Your task to perform on an android device: make emails show in primary in the gmail app Image 0: 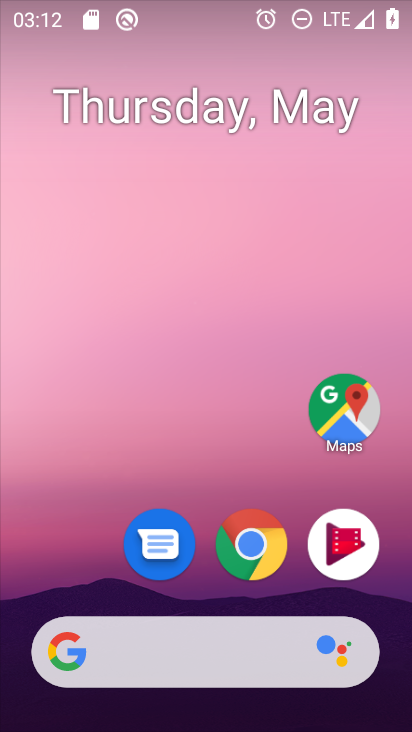
Step 0: drag from (80, 577) to (81, 182)
Your task to perform on an android device: make emails show in primary in the gmail app Image 1: 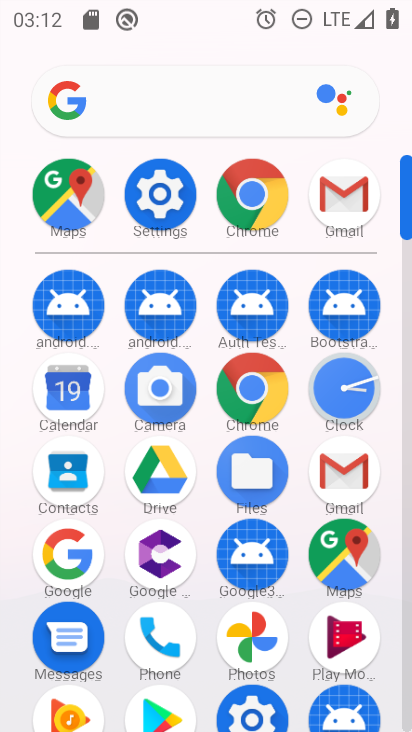
Step 1: click (369, 476)
Your task to perform on an android device: make emails show in primary in the gmail app Image 2: 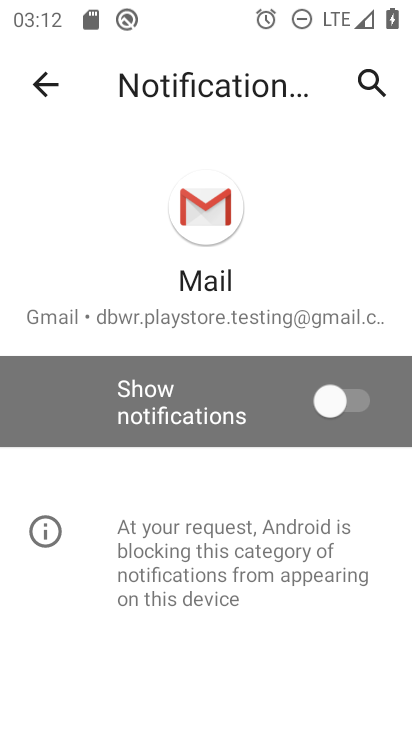
Step 2: click (48, 88)
Your task to perform on an android device: make emails show in primary in the gmail app Image 3: 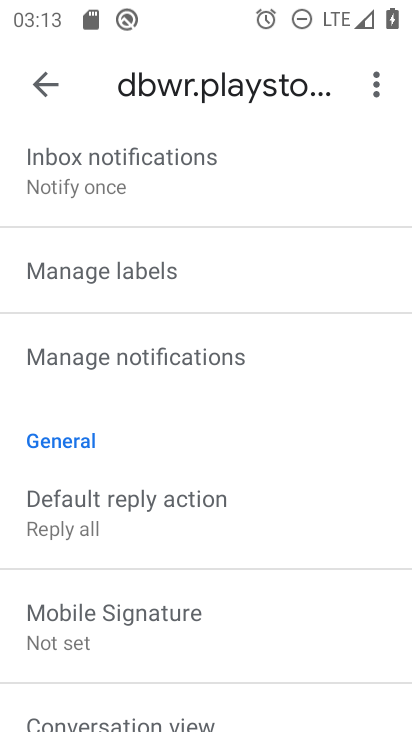
Step 3: drag from (271, 600) to (285, 492)
Your task to perform on an android device: make emails show in primary in the gmail app Image 4: 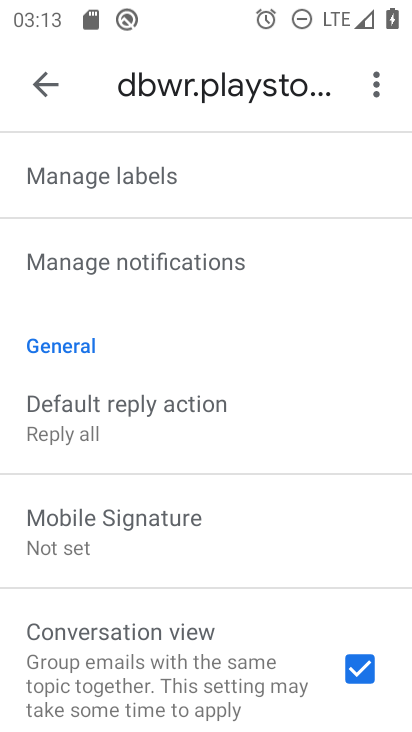
Step 4: drag from (282, 631) to (291, 469)
Your task to perform on an android device: make emails show in primary in the gmail app Image 5: 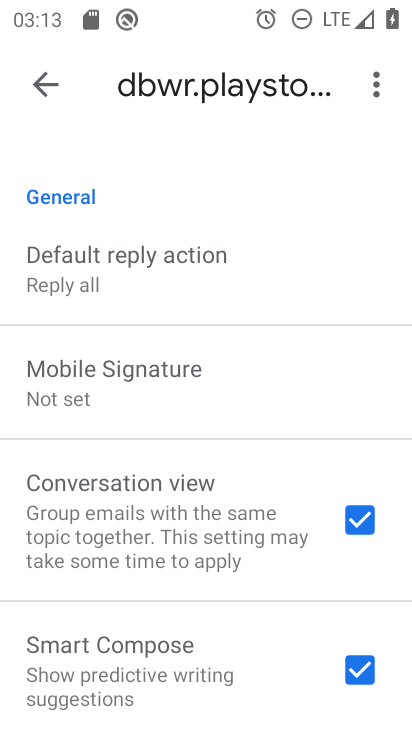
Step 5: drag from (286, 670) to (297, 535)
Your task to perform on an android device: make emails show in primary in the gmail app Image 6: 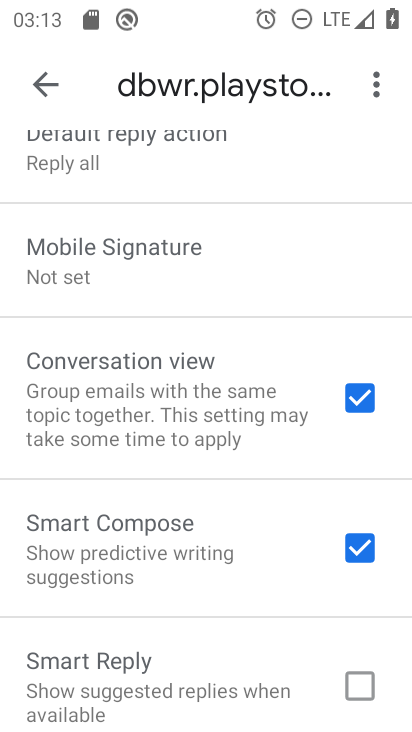
Step 6: drag from (271, 676) to (283, 532)
Your task to perform on an android device: make emails show in primary in the gmail app Image 7: 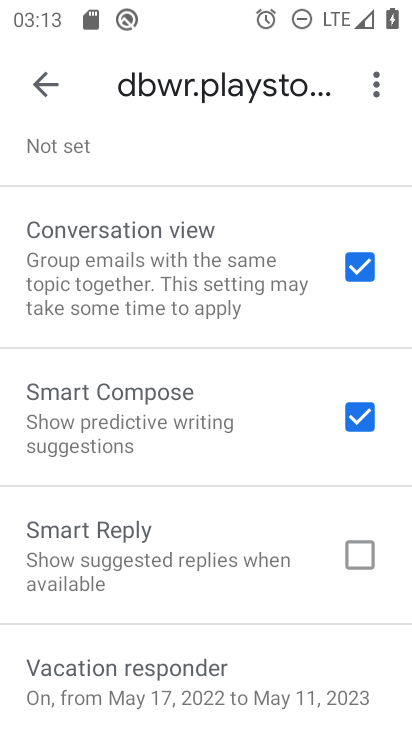
Step 7: drag from (280, 672) to (291, 545)
Your task to perform on an android device: make emails show in primary in the gmail app Image 8: 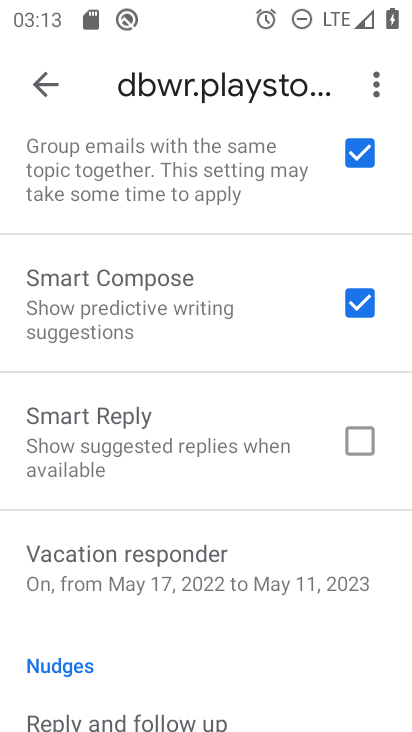
Step 8: drag from (284, 686) to (298, 562)
Your task to perform on an android device: make emails show in primary in the gmail app Image 9: 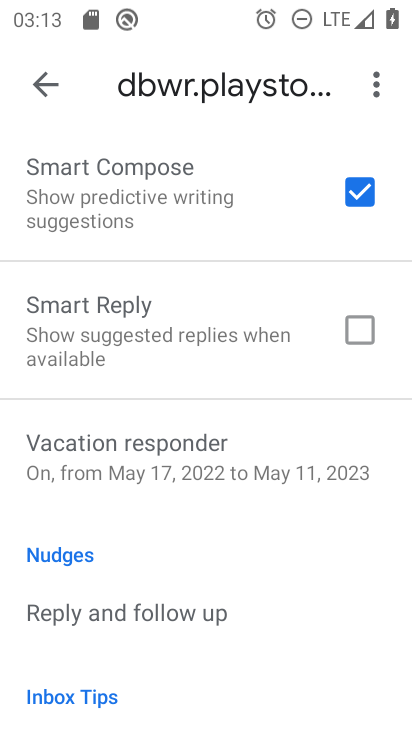
Step 9: drag from (295, 687) to (305, 543)
Your task to perform on an android device: make emails show in primary in the gmail app Image 10: 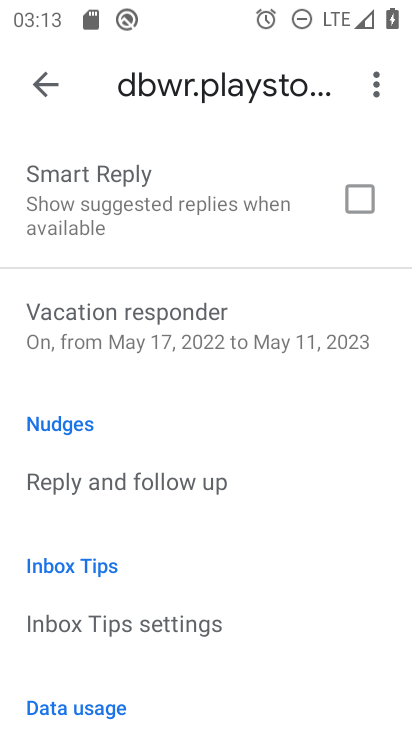
Step 10: drag from (283, 705) to (318, 362)
Your task to perform on an android device: make emails show in primary in the gmail app Image 11: 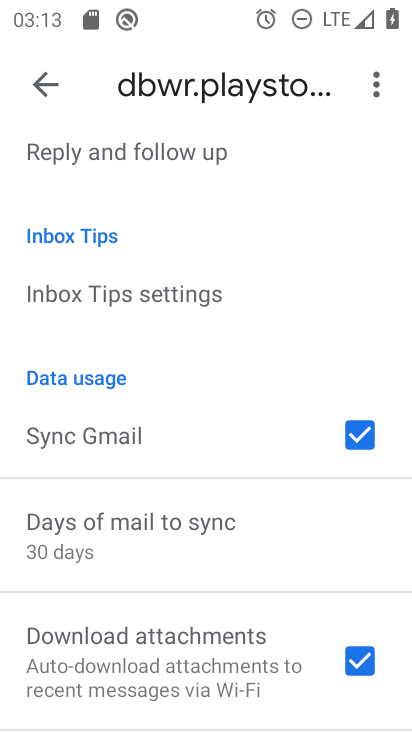
Step 11: drag from (295, 540) to (295, 426)
Your task to perform on an android device: make emails show in primary in the gmail app Image 12: 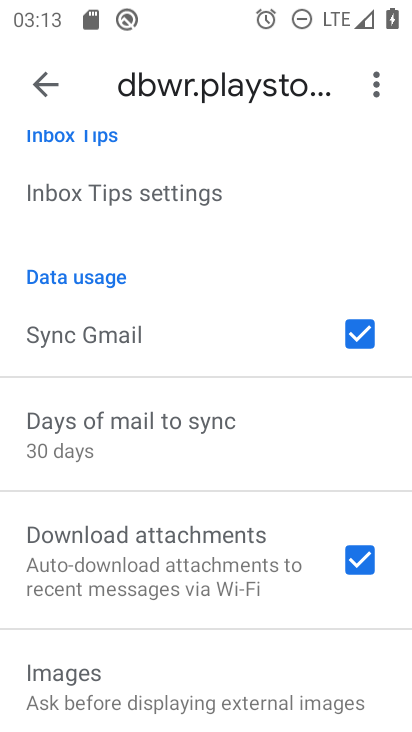
Step 12: drag from (294, 592) to (288, 444)
Your task to perform on an android device: make emails show in primary in the gmail app Image 13: 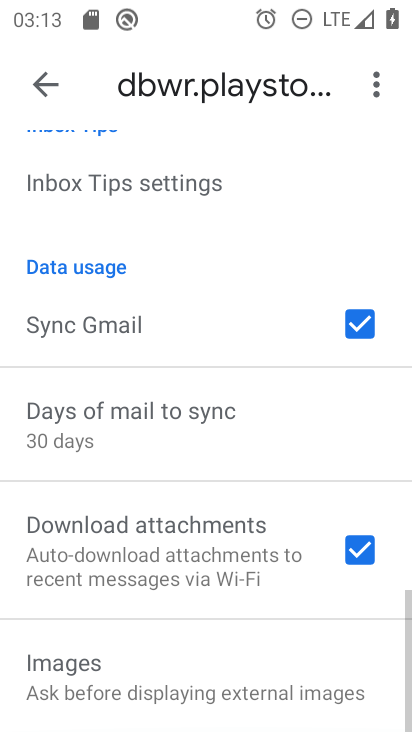
Step 13: drag from (288, 355) to (274, 465)
Your task to perform on an android device: make emails show in primary in the gmail app Image 14: 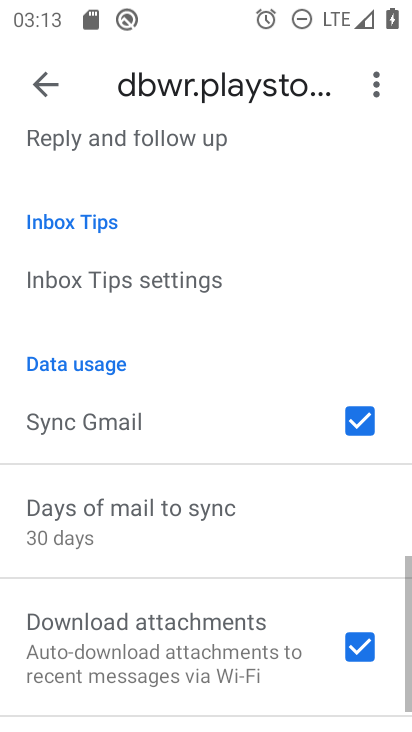
Step 14: drag from (278, 333) to (276, 442)
Your task to perform on an android device: make emails show in primary in the gmail app Image 15: 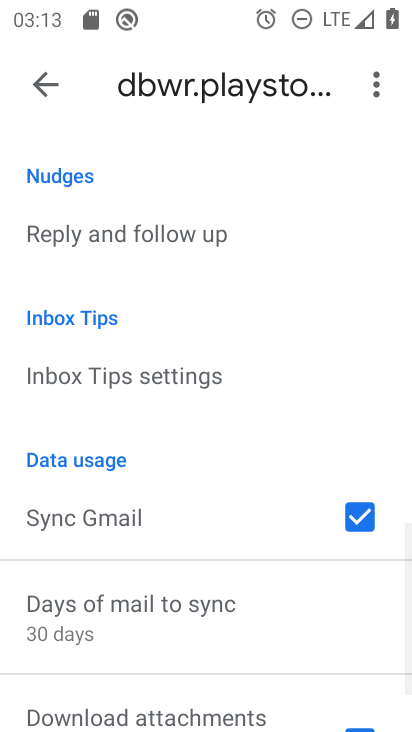
Step 15: drag from (276, 317) to (275, 427)
Your task to perform on an android device: make emails show in primary in the gmail app Image 16: 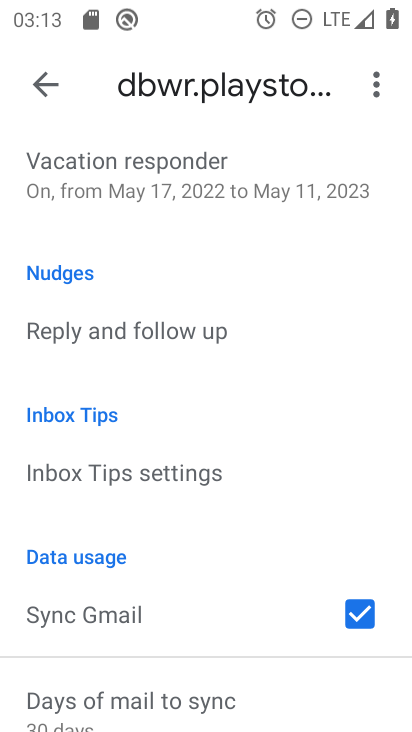
Step 16: drag from (273, 303) to (273, 405)
Your task to perform on an android device: make emails show in primary in the gmail app Image 17: 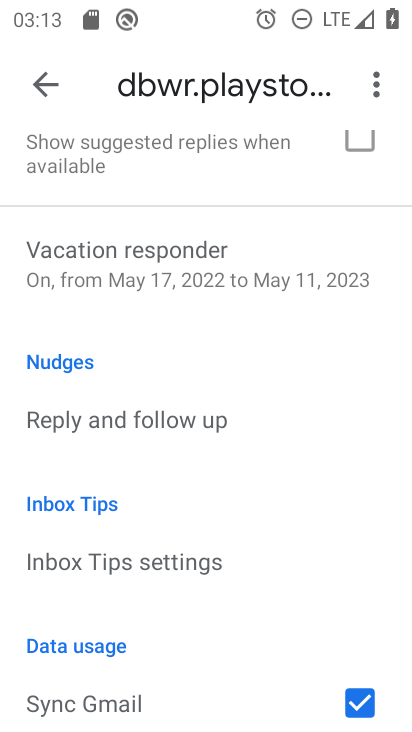
Step 17: drag from (272, 311) to (261, 413)
Your task to perform on an android device: make emails show in primary in the gmail app Image 18: 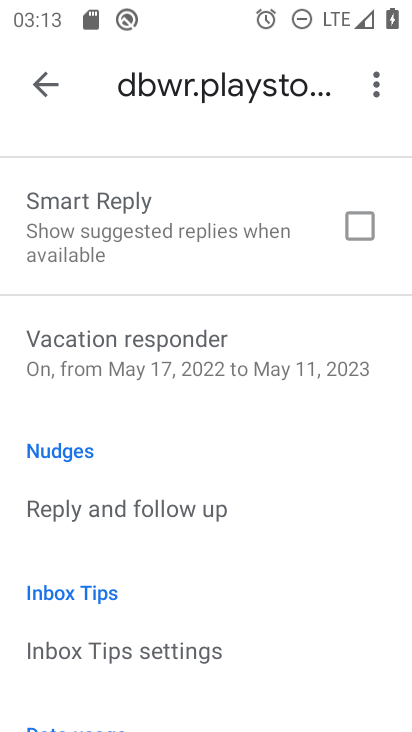
Step 18: drag from (260, 284) to (258, 375)
Your task to perform on an android device: make emails show in primary in the gmail app Image 19: 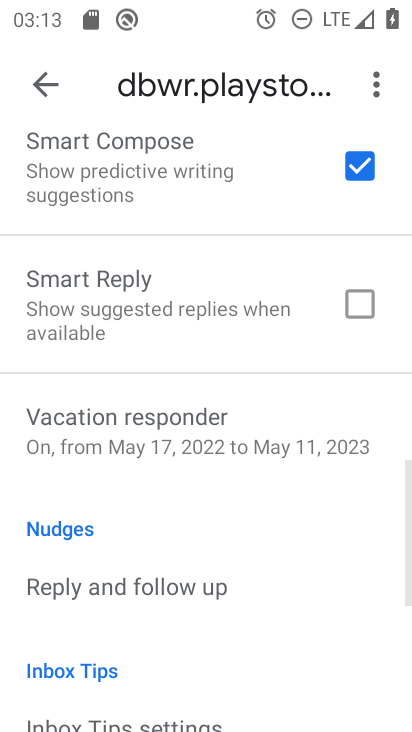
Step 19: drag from (266, 252) to (266, 347)
Your task to perform on an android device: make emails show in primary in the gmail app Image 20: 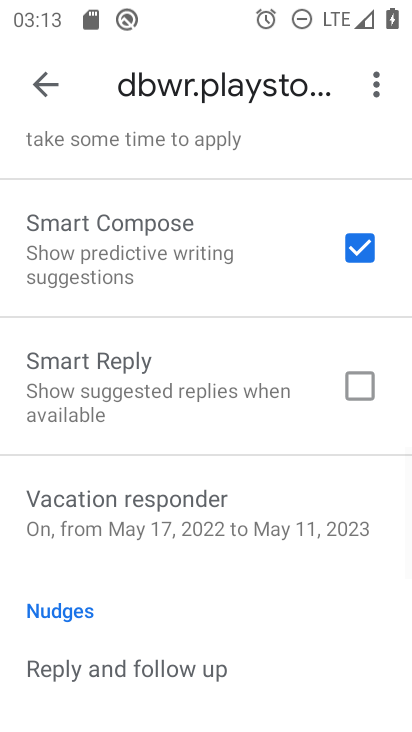
Step 20: drag from (267, 246) to (258, 352)
Your task to perform on an android device: make emails show in primary in the gmail app Image 21: 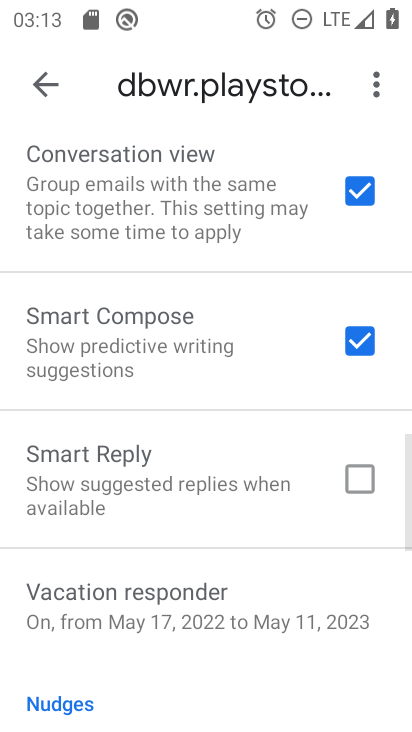
Step 21: drag from (266, 232) to (266, 340)
Your task to perform on an android device: make emails show in primary in the gmail app Image 22: 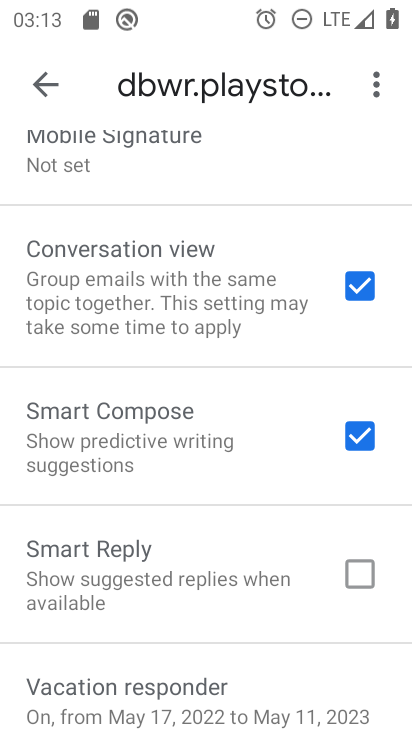
Step 22: drag from (256, 227) to (253, 329)
Your task to perform on an android device: make emails show in primary in the gmail app Image 23: 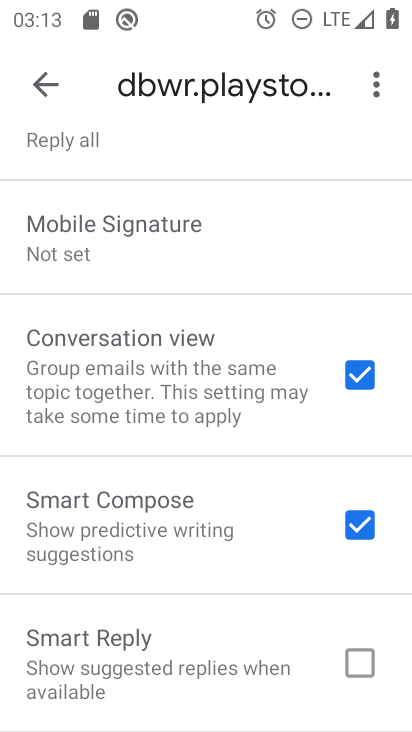
Step 23: drag from (250, 215) to (251, 329)
Your task to perform on an android device: make emails show in primary in the gmail app Image 24: 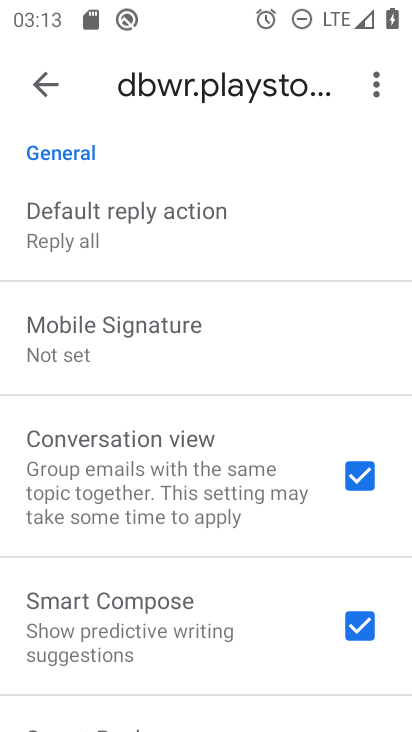
Step 24: drag from (250, 227) to (247, 332)
Your task to perform on an android device: make emails show in primary in the gmail app Image 25: 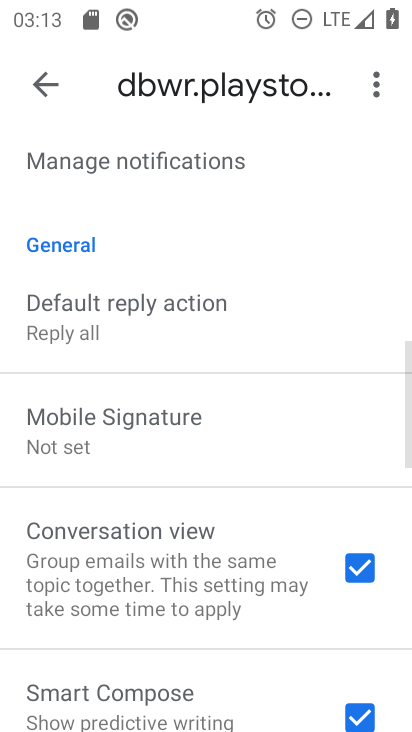
Step 25: drag from (244, 208) to (243, 346)
Your task to perform on an android device: make emails show in primary in the gmail app Image 26: 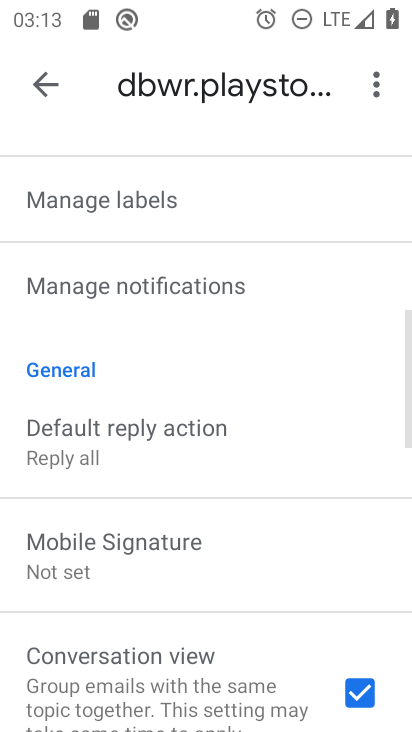
Step 26: drag from (241, 205) to (235, 316)
Your task to perform on an android device: make emails show in primary in the gmail app Image 27: 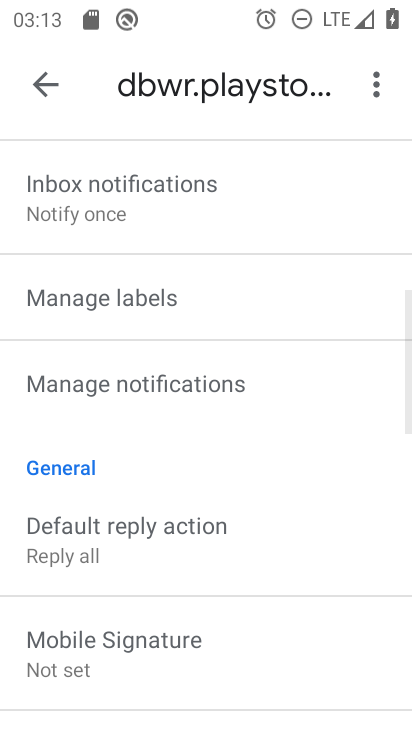
Step 27: drag from (236, 193) to (235, 309)
Your task to perform on an android device: make emails show in primary in the gmail app Image 28: 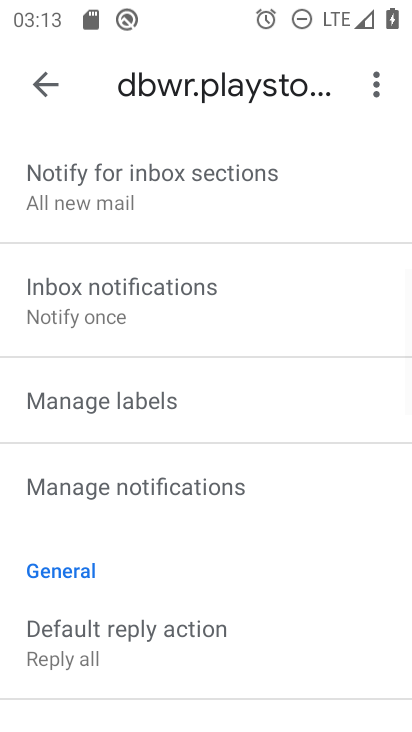
Step 28: drag from (223, 211) to (224, 302)
Your task to perform on an android device: make emails show in primary in the gmail app Image 29: 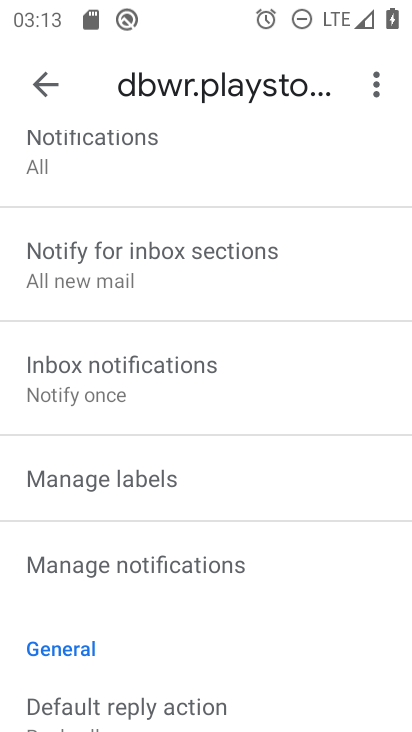
Step 29: drag from (330, 262) to (310, 398)
Your task to perform on an android device: make emails show in primary in the gmail app Image 30: 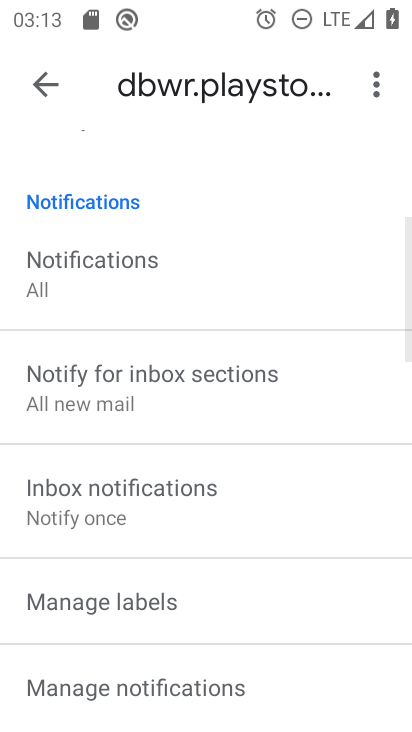
Step 30: drag from (292, 274) to (295, 391)
Your task to perform on an android device: make emails show in primary in the gmail app Image 31: 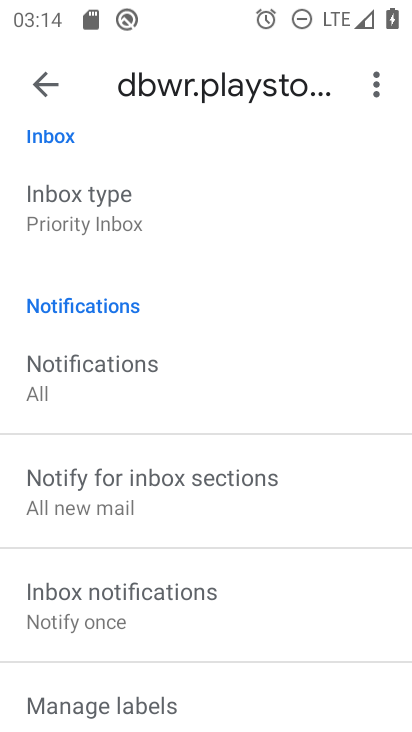
Step 31: click (92, 221)
Your task to perform on an android device: make emails show in primary in the gmail app Image 32: 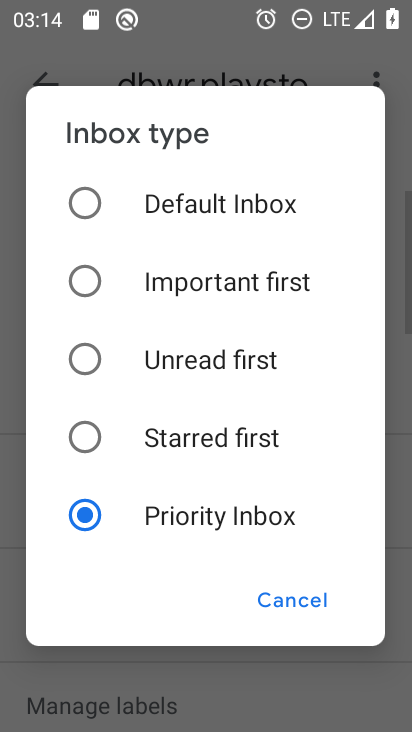
Step 32: click (116, 210)
Your task to perform on an android device: make emails show in primary in the gmail app Image 33: 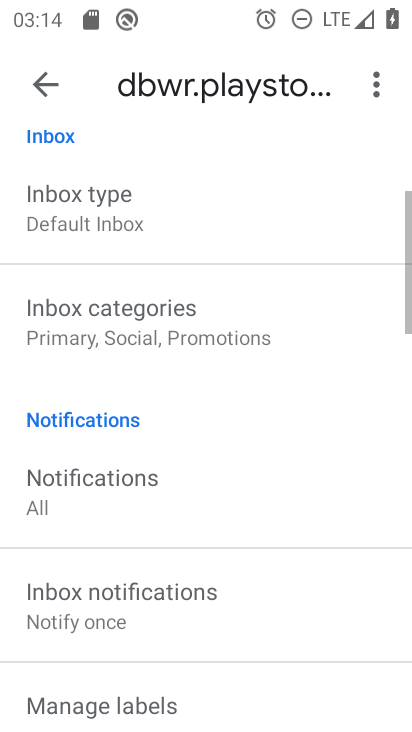
Step 33: click (145, 340)
Your task to perform on an android device: make emails show in primary in the gmail app Image 34: 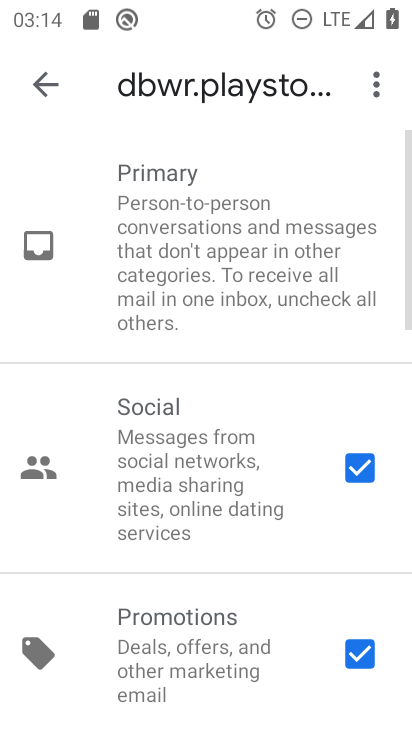
Step 34: click (364, 467)
Your task to perform on an android device: make emails show in primary in the gmail app Image 35: 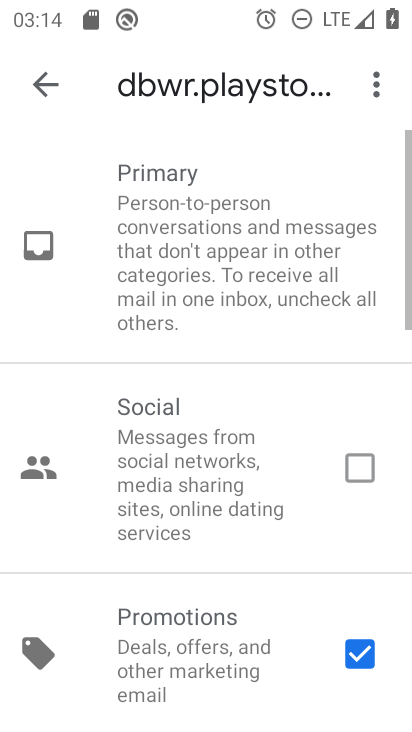
Step 35: click (359, 666)
Your task to perform on an android device: make emails show in primary in the gmail app Image 36: 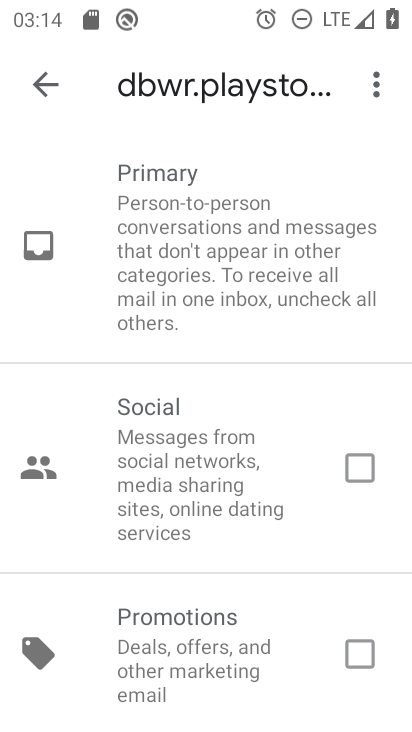
Step 36: task complete